Your task to perform on an android device: Open settings Image 0: 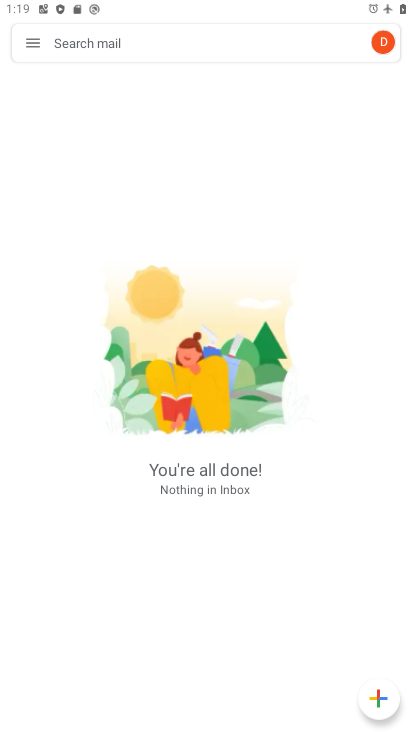
Step 0: press home button
Your task to perform on an android device: Open settings Image 1: 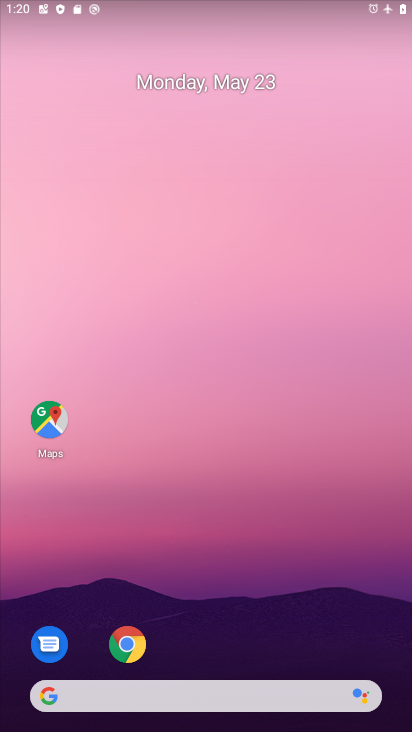
Step 1: drag from (374, 661) to (235, 14)
Your task to perform on an android device: Open settings Image 2: 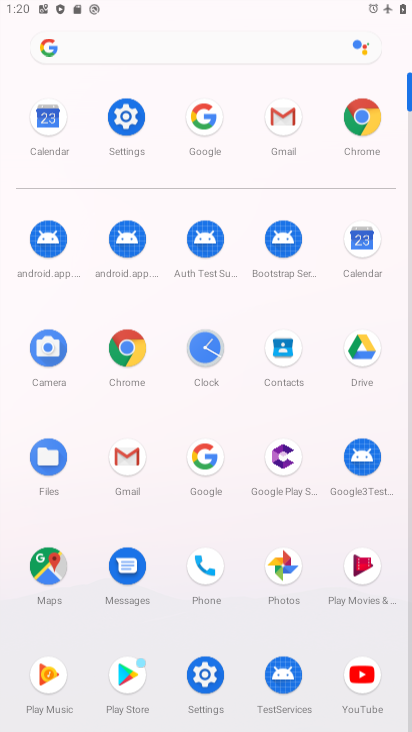
Step 2: click (112, 140)
Your task to perform on an android device: Open settings Image 3: 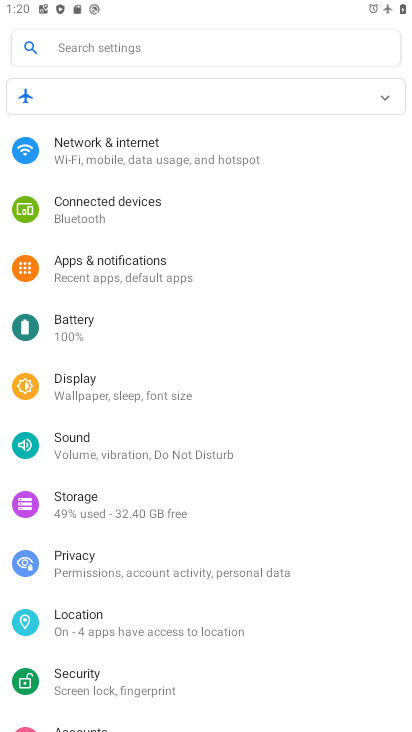
Step 3: task complete